Your task to perform on an android device: Go to notification settings Image 0: 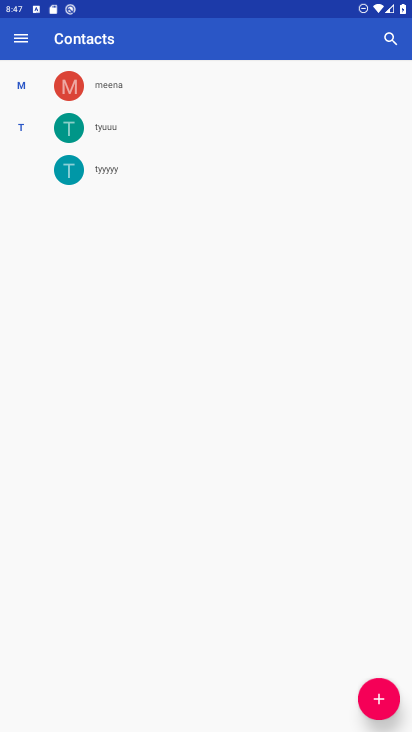
Step 0: press home button
Your task to perform on an android device: Go to notification settings Image 1: 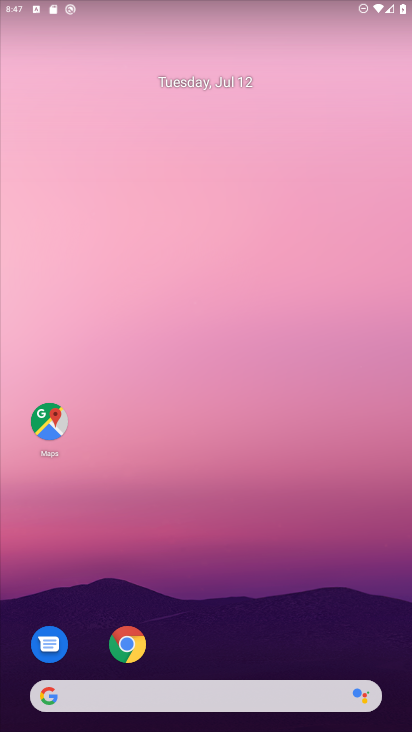
Step 1: drag from (366, 640) to (272, 166)
Your task to perform on an android device: Go to notification settings Image 2: 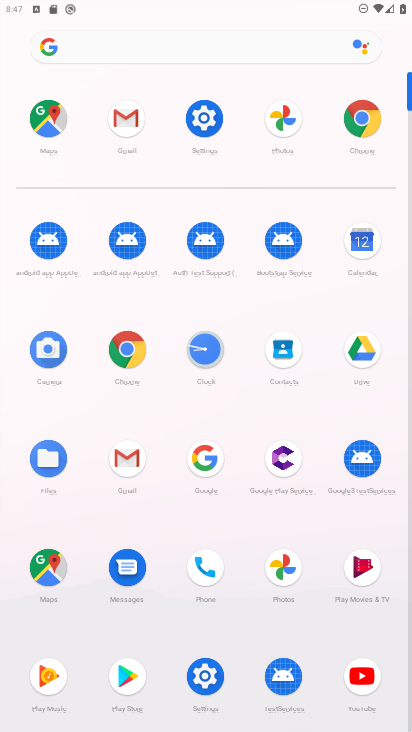
Step 2: click (202, 678)
Your task to perform on an android device: Go to notification settings Image 3: 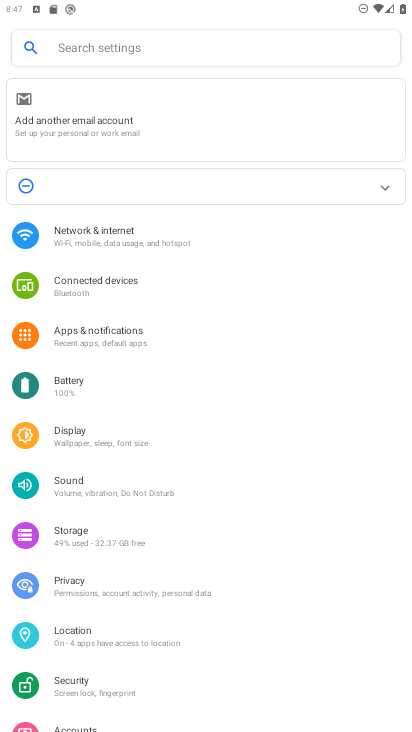
Step 3: click (105, 341)
Your task to perform on an android device: Go to notification settings Image 4: 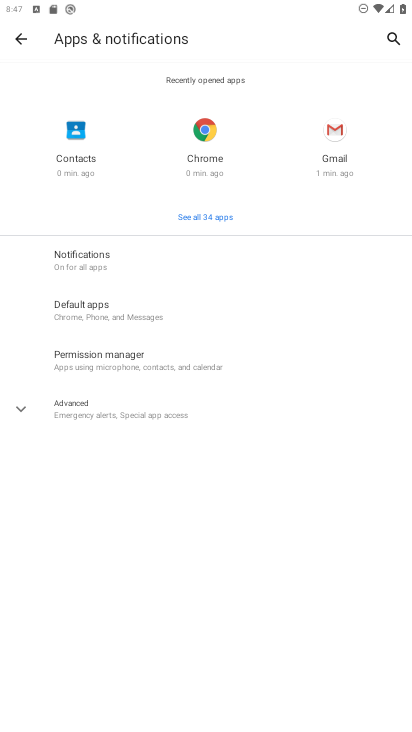
Step 4: click (23, 405)
Your task to perform on an android device: Go to notification settings Image 5: 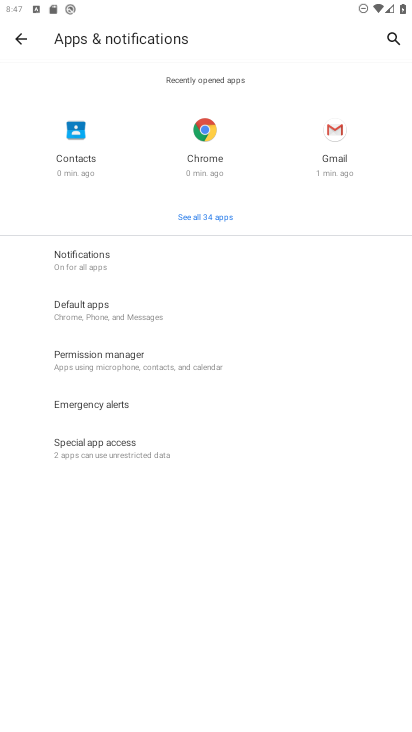
Step 5: click (62, 247)
Your task to perform on an android device: Go to notification settings Image 6: 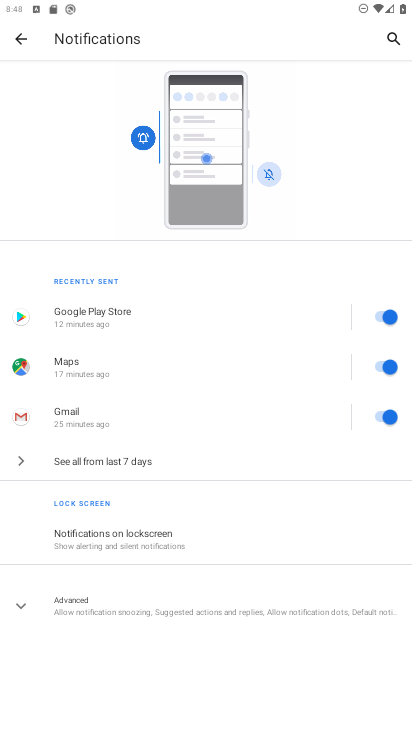
Step 6: click (19, 609)
Your task to perform on an android device: Go to notification settings Image 7: 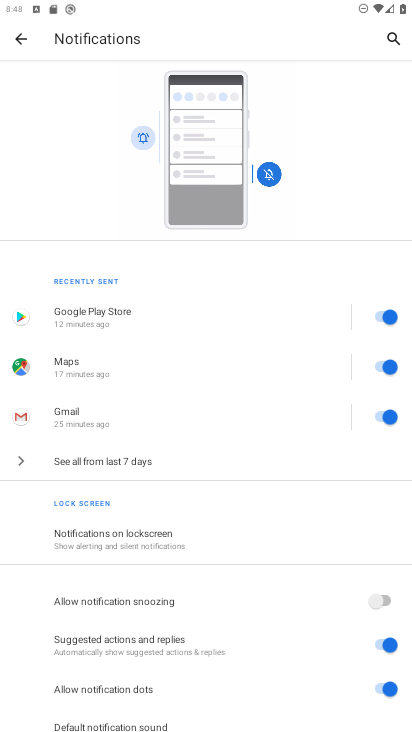
Step 7: task complete